Your task to perform on an android device: see tabs open on other devices in the chrome app Image 0: 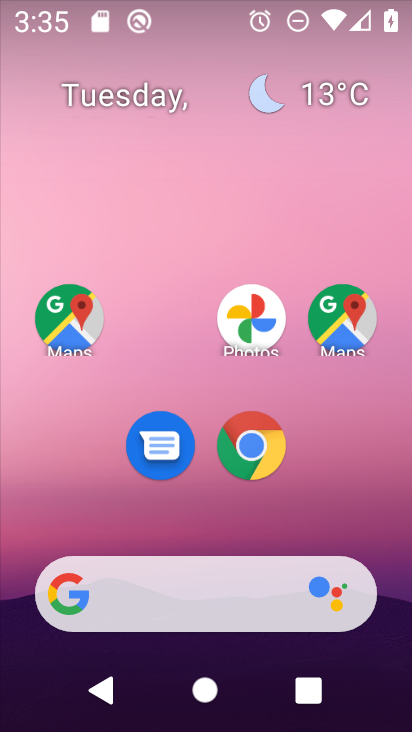
Step 0: drag from (383, 553) to (381, 252)
Your task to perform on an android device: see tabs open on other devices in the chrome app Image 1: 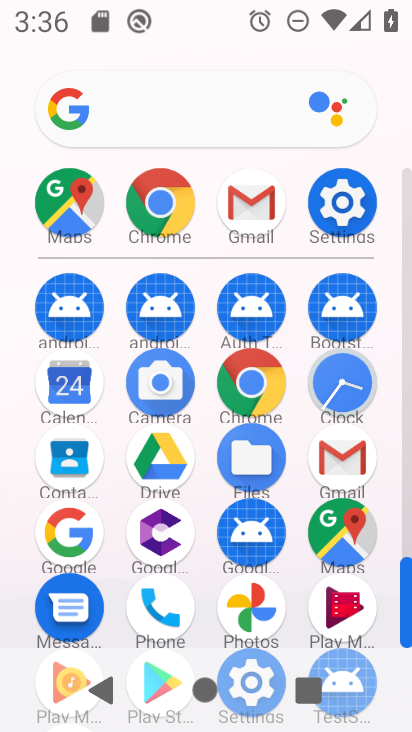
Step 1: click (258, 394)
Your task to perform on an android device: see tabs open on other devices in the chrome app Image 2: 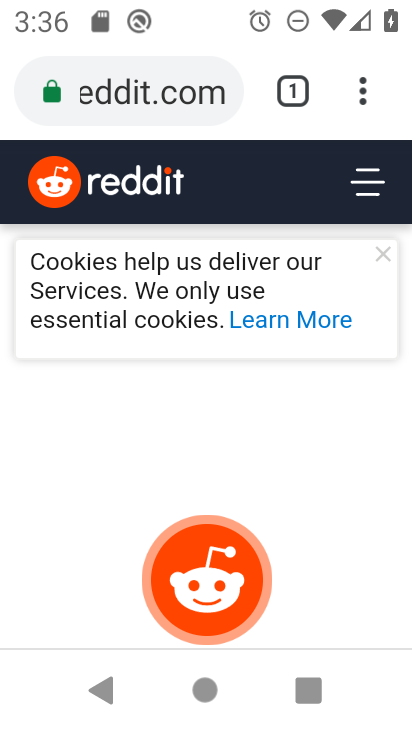
Step 2: click (360, 89)
Your task to perform on an android device: see tabs open on other devices in the chrome app Image 3: 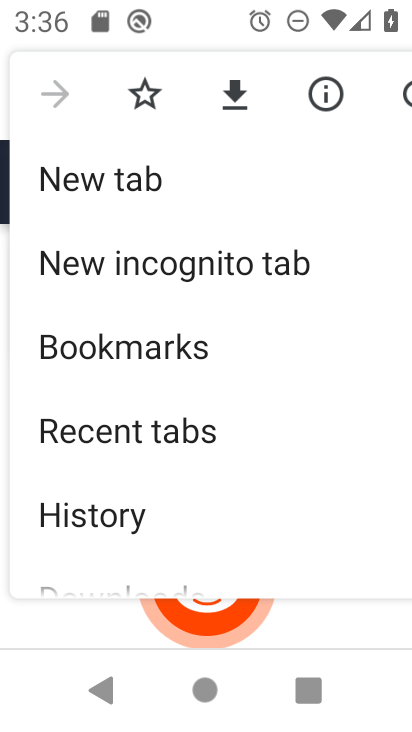
Step 3: click (165, 436)
Your task to perform on an android device: see tabs open on other devices in the chrome app Image 4: 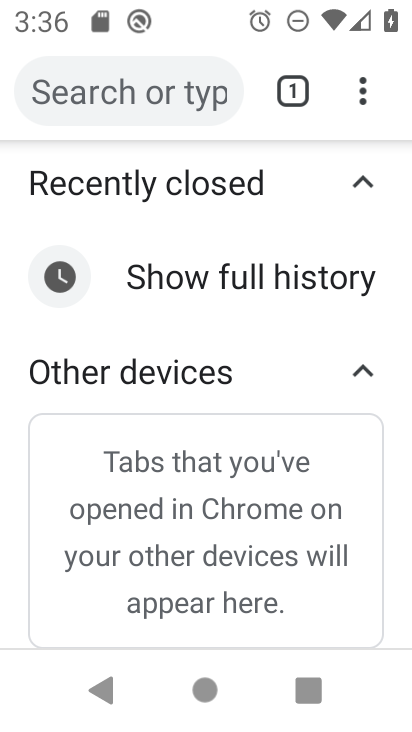
Step 4: click (284, 89)
Your task to perform on an android device: see tabs open on other devices in the chrome app Image 5: 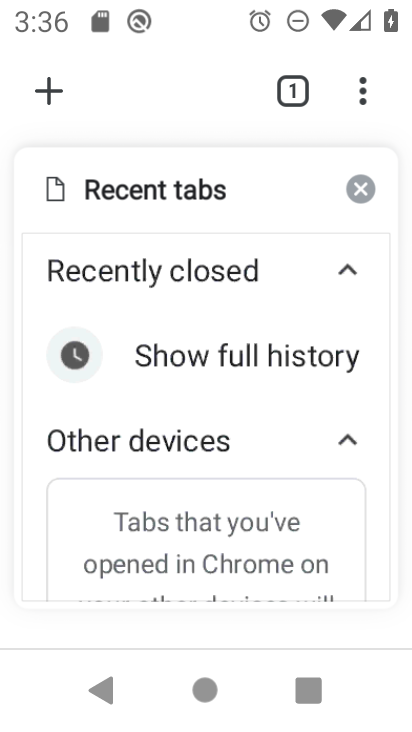
Step 5: task complete